Your task to perform on an android device: open app "DoorDash - Food Delivery" (install if not already installed) Image 0: 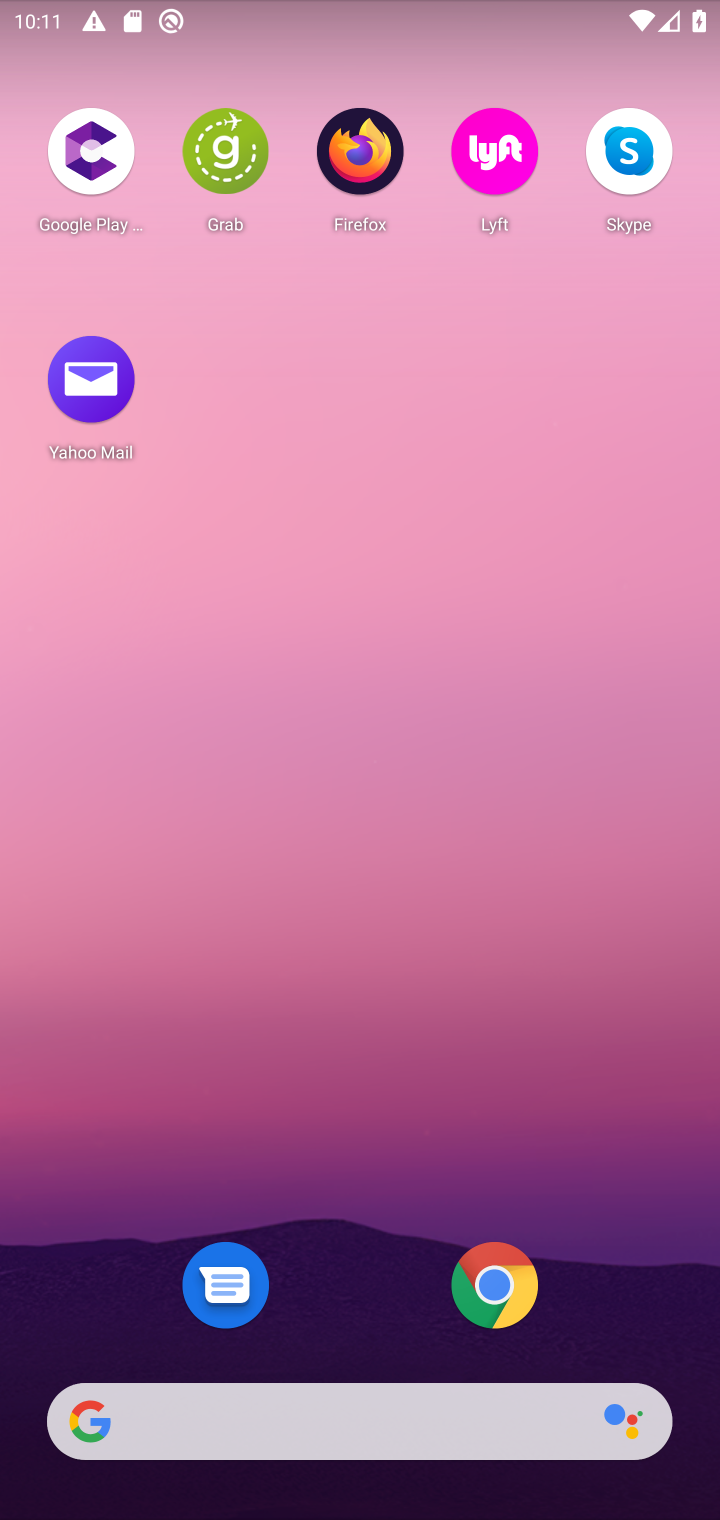
Step 0: drag from (641, 1228) to (420, 48)
Your task to perform on an android device: open app "DoorDash - Food Delivery" (install if not already installed) Image 1: 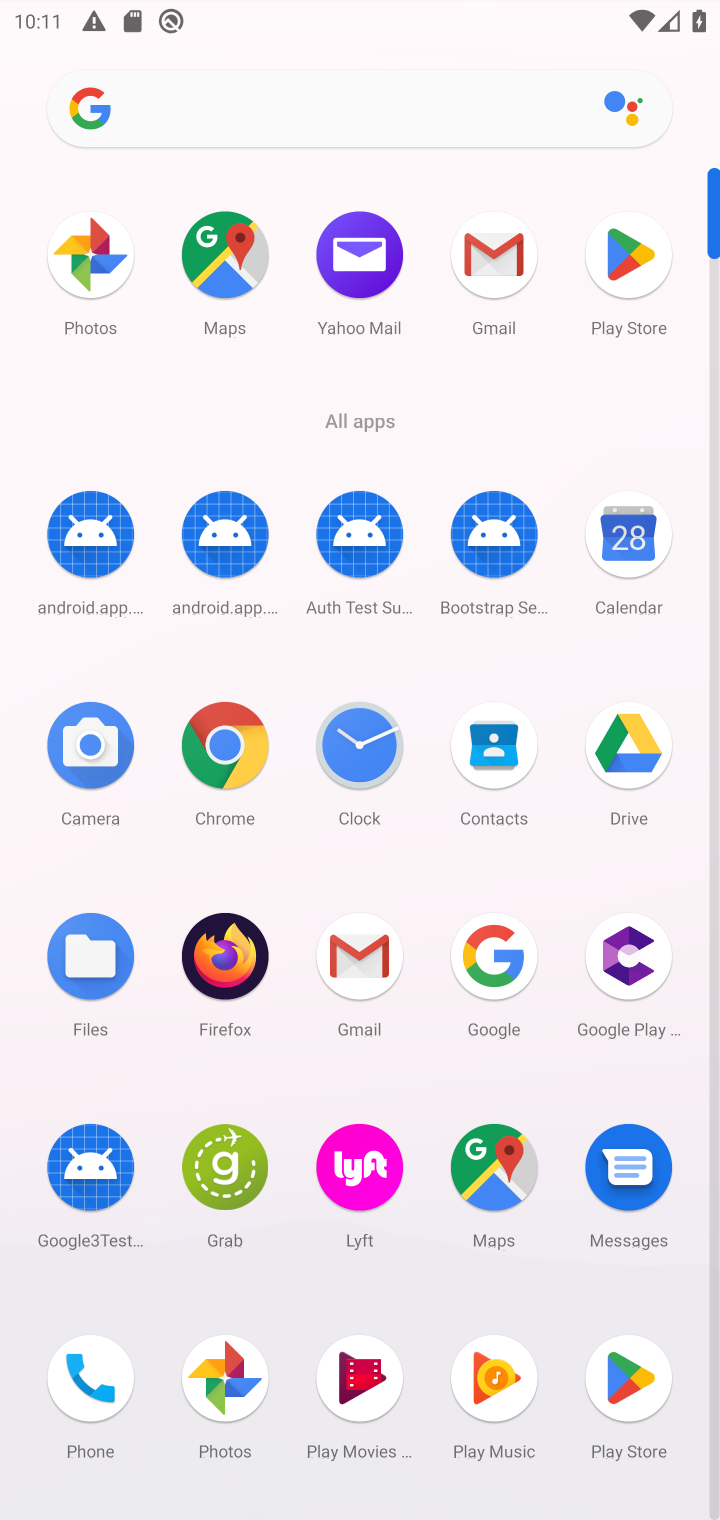
Step 1: click (622, 242)
Your task to perform on an android device: open app "DoorDash - Food Delivery" (install if not already installed) Image 2: 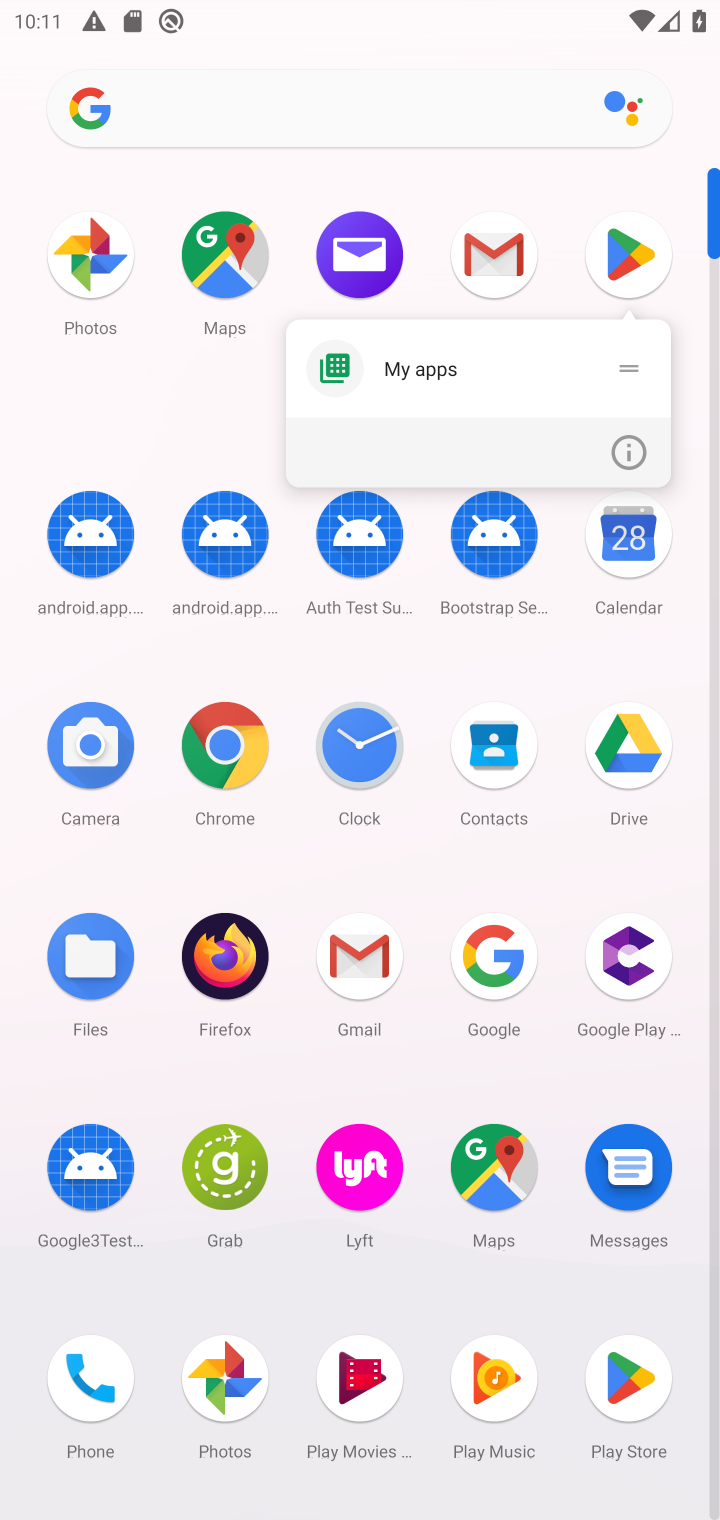
Step 2: click (622, 242)
Your task to perform on an android device: open app "DoorDash - Food Delivery" (install if not already installed) Image 3: 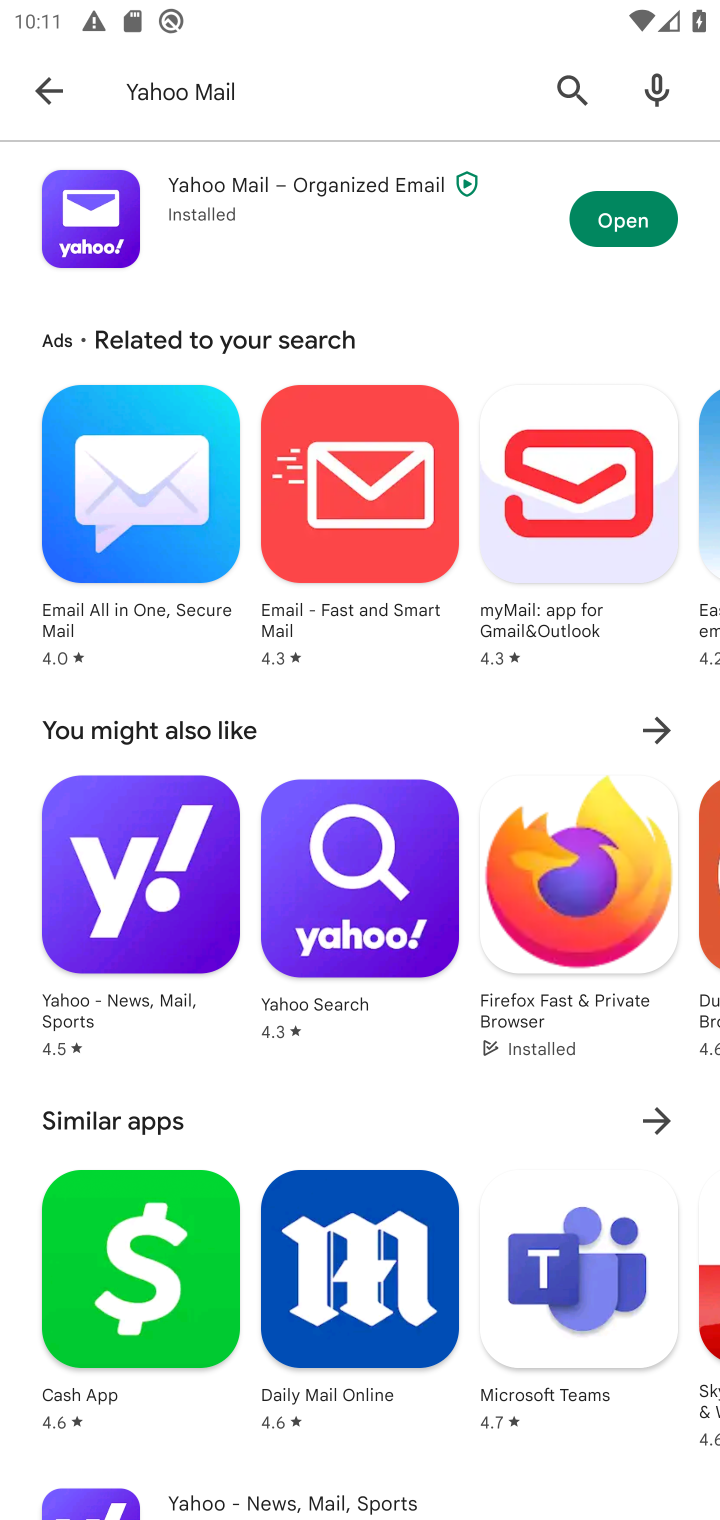
Step 3: click (339, 106)
Your task to perform on an android device: open app "DoorDash - Food Delivery" (install if not already installed) Image 4: 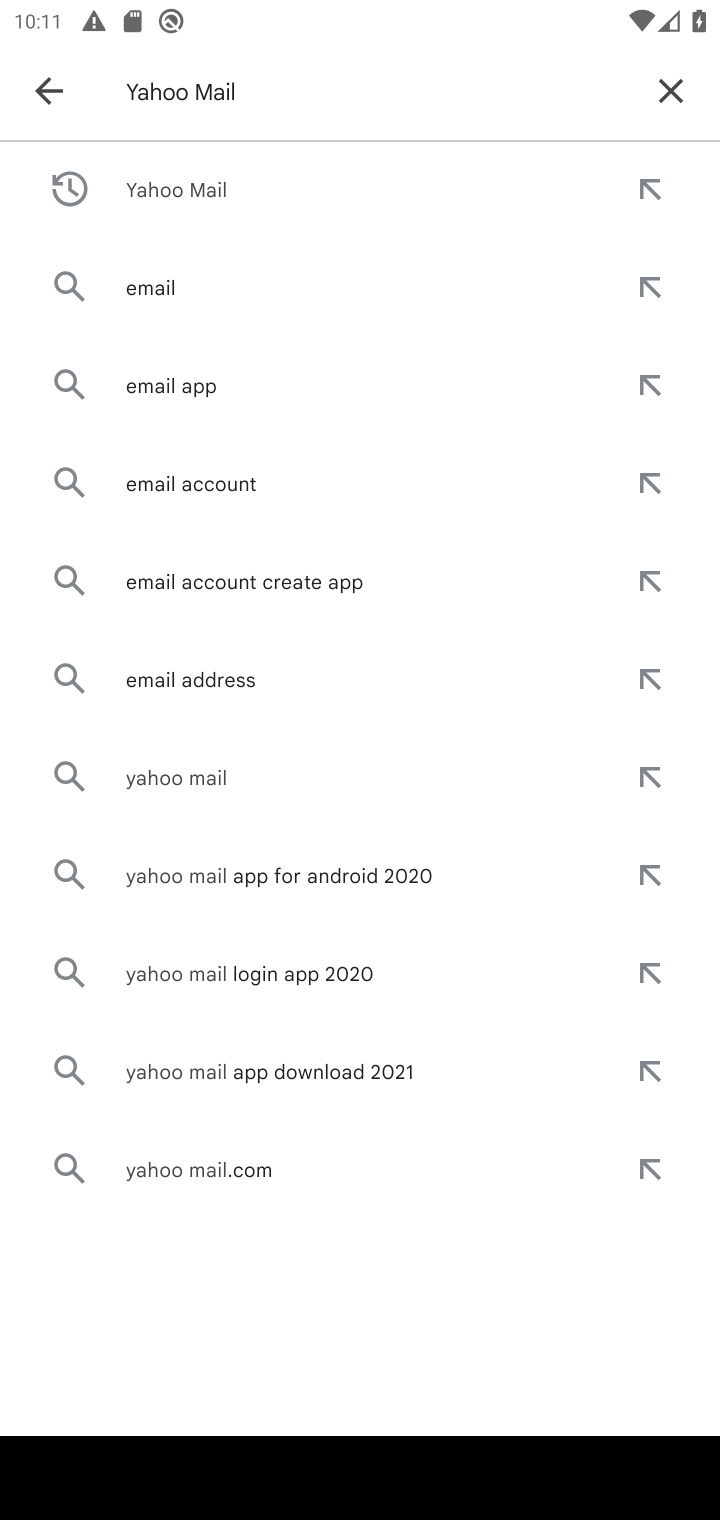
Step 4: click (653, 90)
Your task to perform on an android device: open app "DoorDash - Food Delivery" (install if not already installed) Image 5: 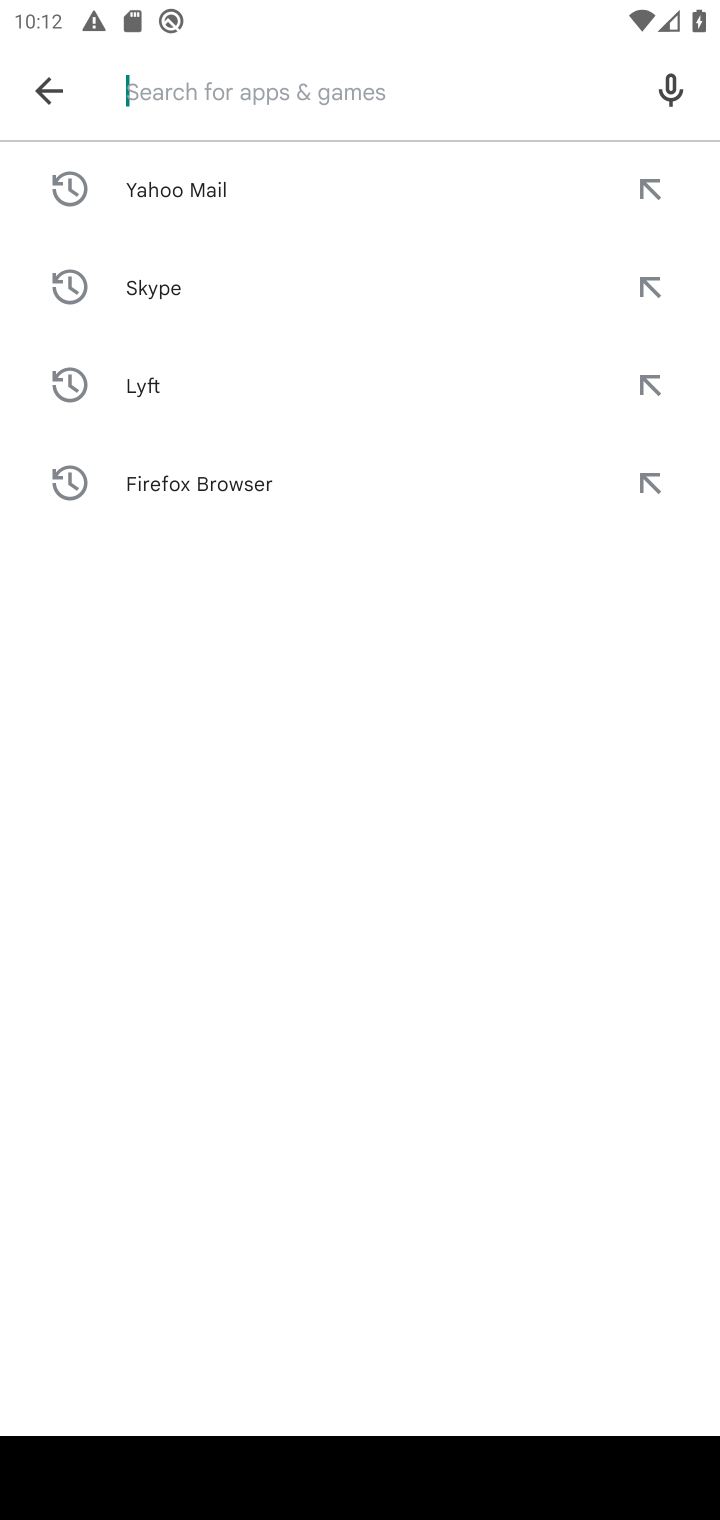
Step 5: type "DoorDash - Food Delivery"
Your task to perform on an android device: open app "DoorDash - Food Delivery" (install if not already installed) Image 6: 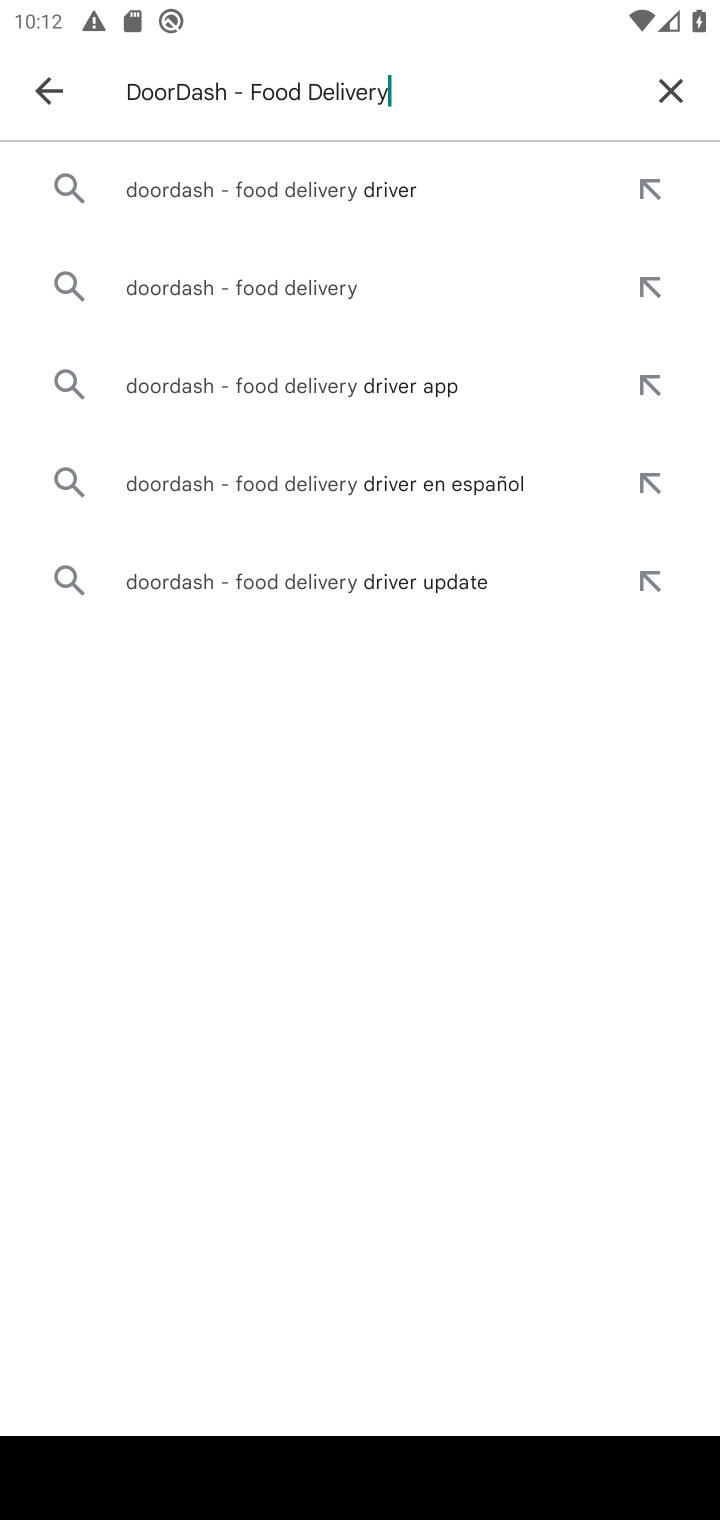
Step 6: press enter
Your task to perform on an android device: open app "DoorDash - Food Delivery" (install if not already installed) Image 7: 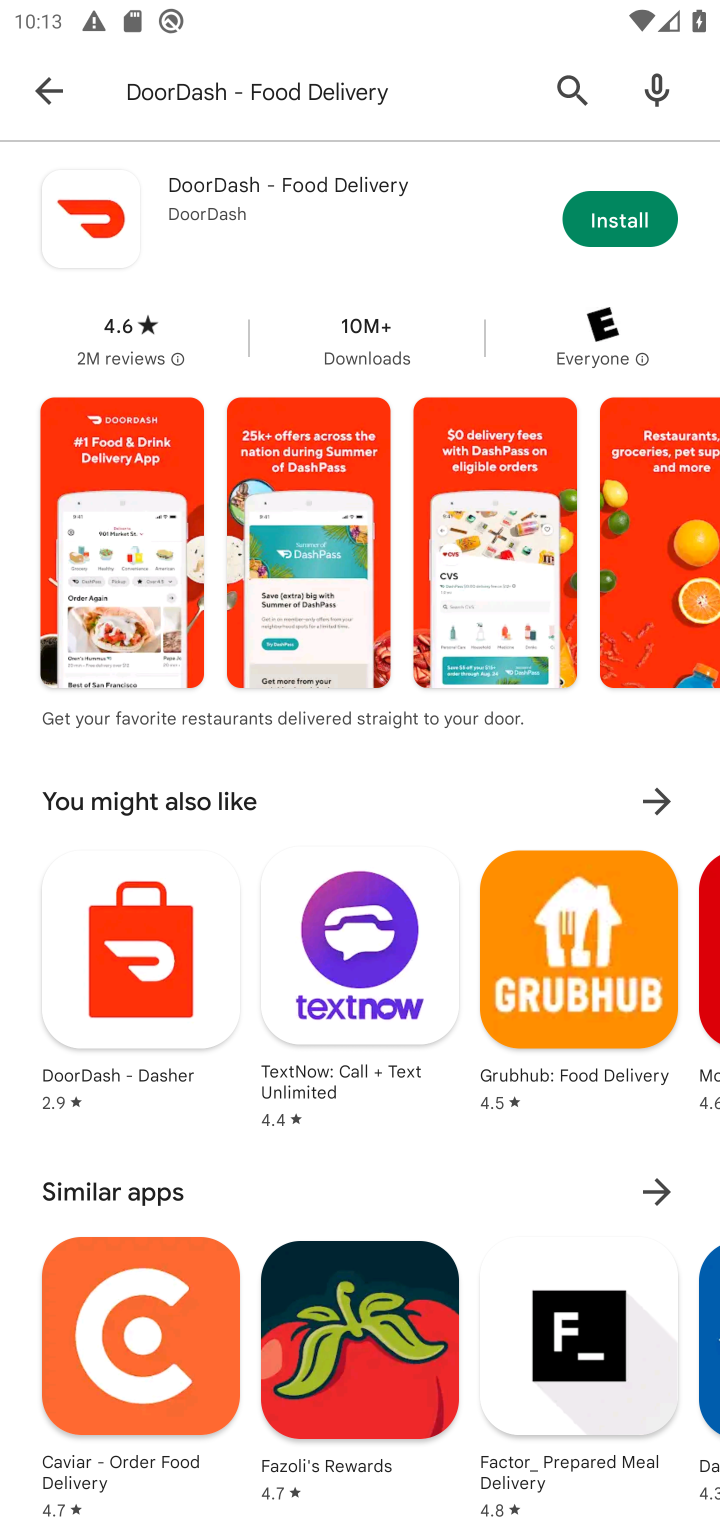
Step 7: click (644, 207)
Your task to perform on an android device: open app "DoorDash - Food Delivery" (install if not already installed) Image 8: 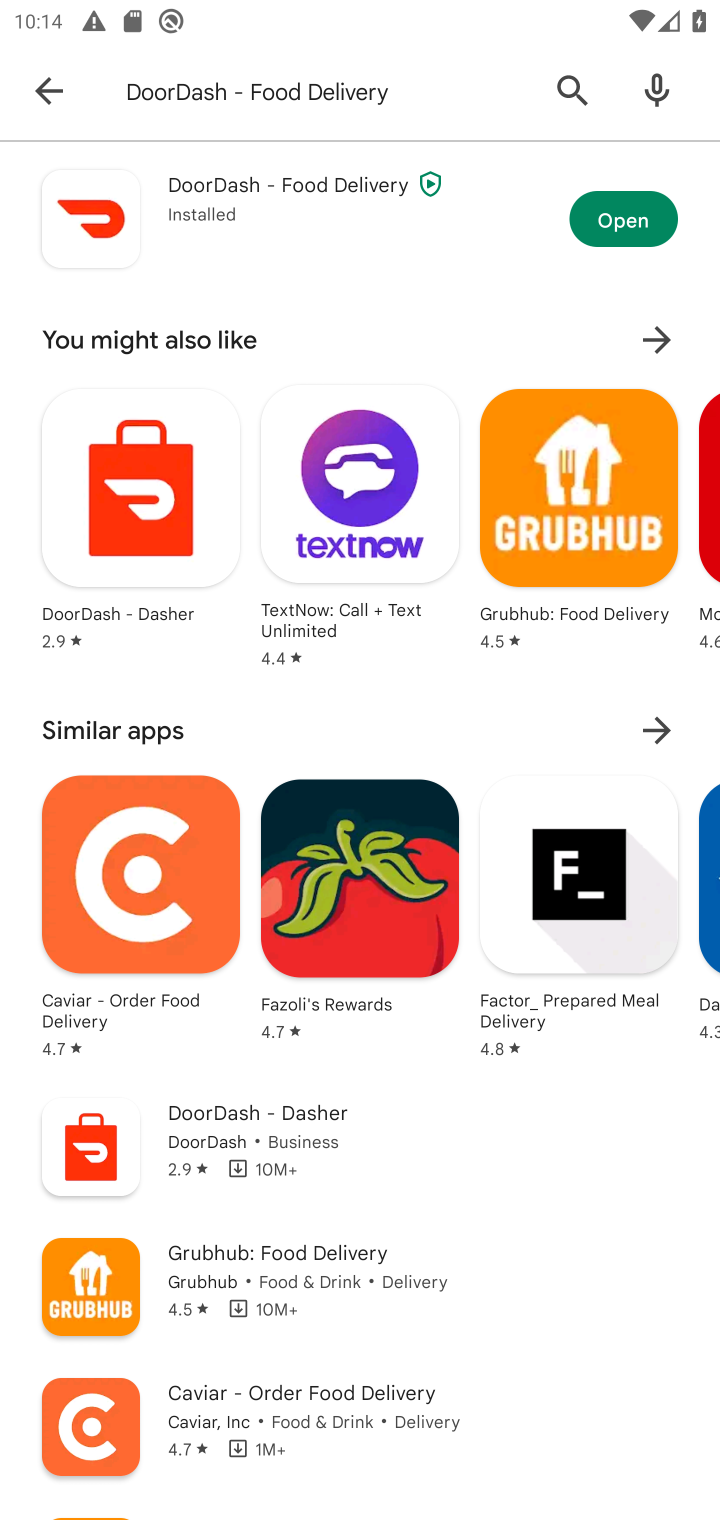
Step 8: click (596, 224)
Your task to perform on an android device: open app "DoorDash - Food Delivery" (install if not already installed) Image 9: 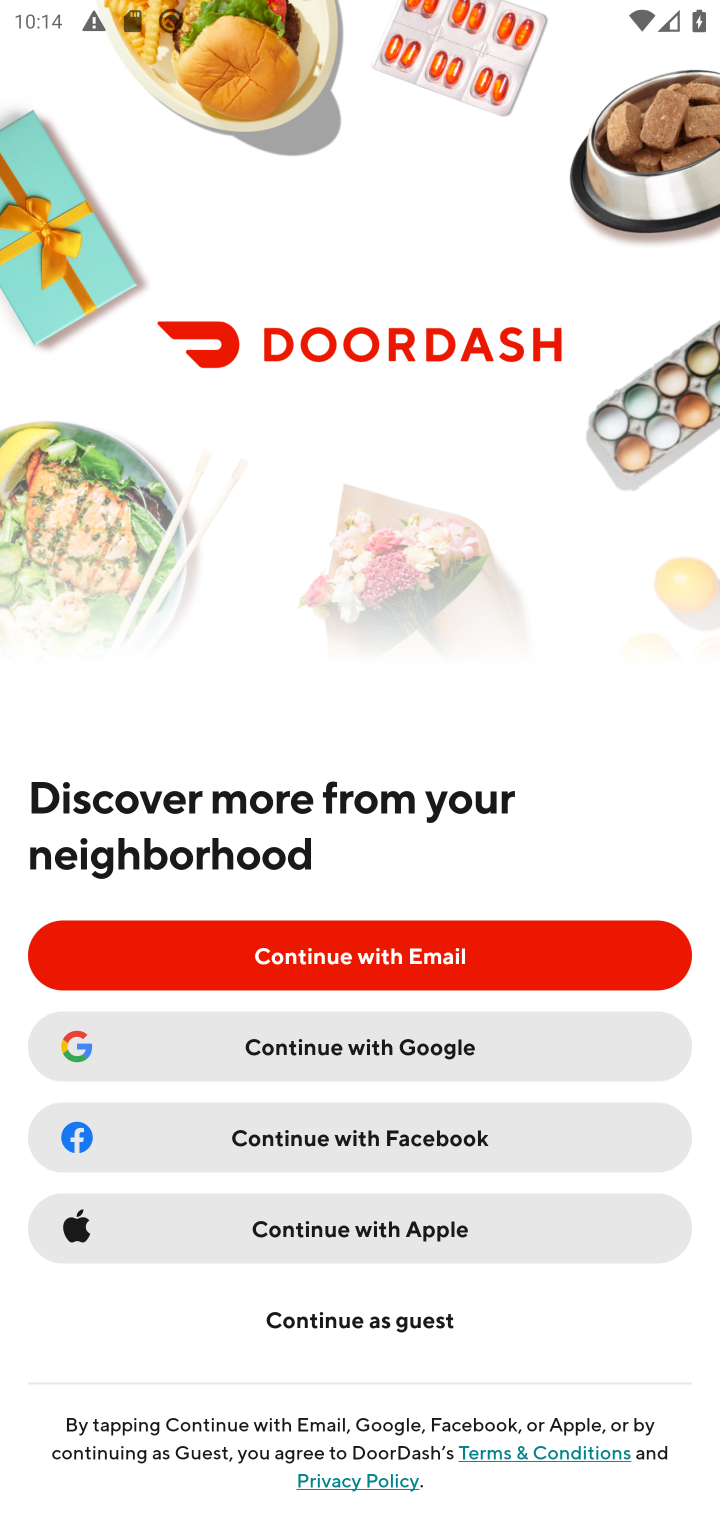
Step 9: task complete